Your task to perform on an android device: delete a single message in the gmail app Image 0: 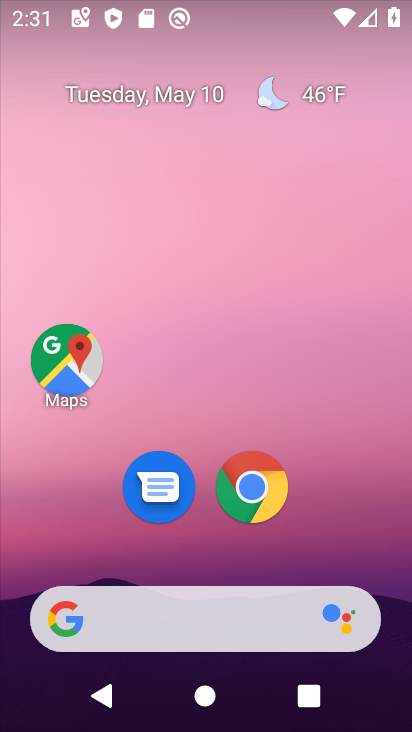
Step 0: drag from (324, 539) to (250, 8)
Your task to perform on an android device: delete a single message in the gmail app Image 1: 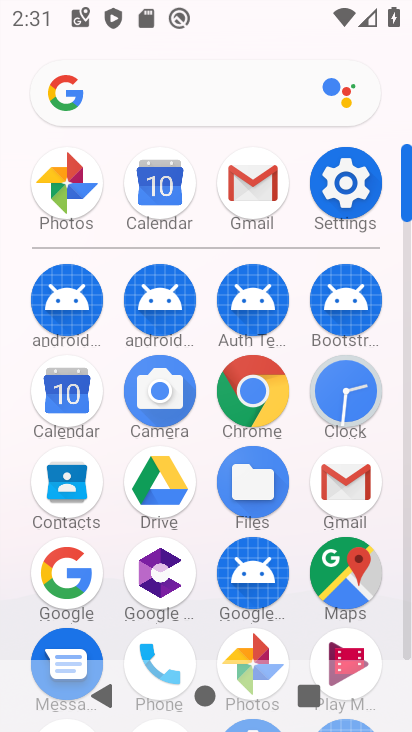
Step 1: click (260, 190)
Your task to perform on an android device: delete a single message in the gmail app Image 2: 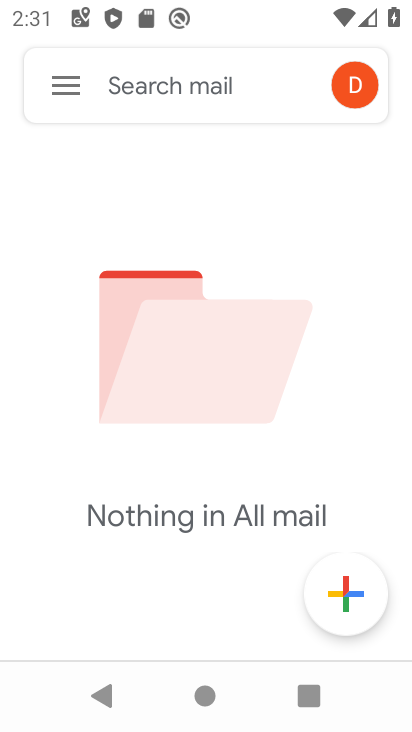
Step 2: task complete